Your task to perform on an android device: change the clock display to show seconds Image 0: 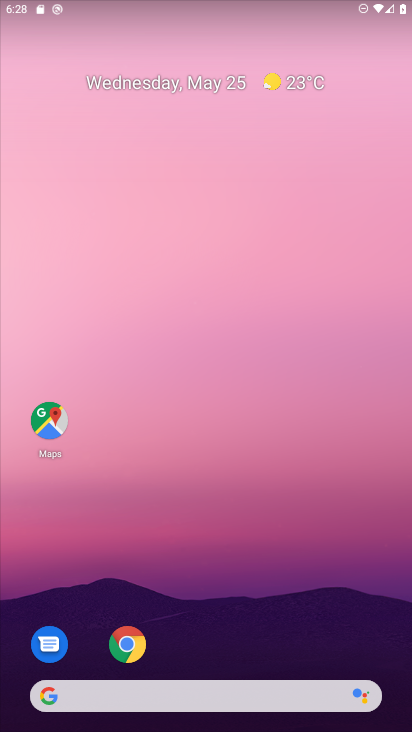
Step 0: drag from (403, 667) to (291, 3)
Your task to perform on an android device: change the clock display to show seconds Image 1: 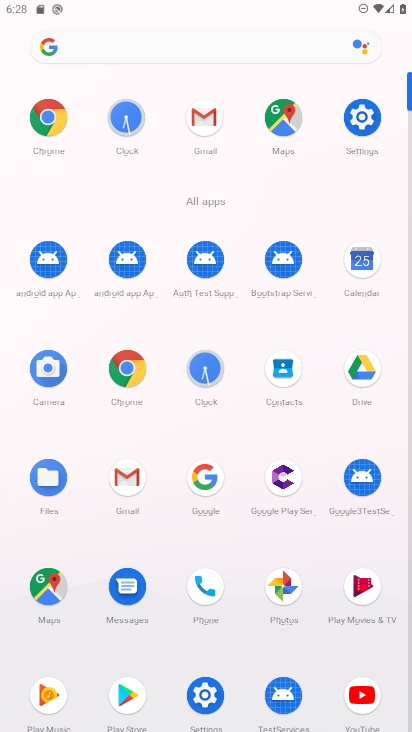
Step 1: click (201, 384)
Your task to perform on an android device: change the clock display to show seconds Image 2: 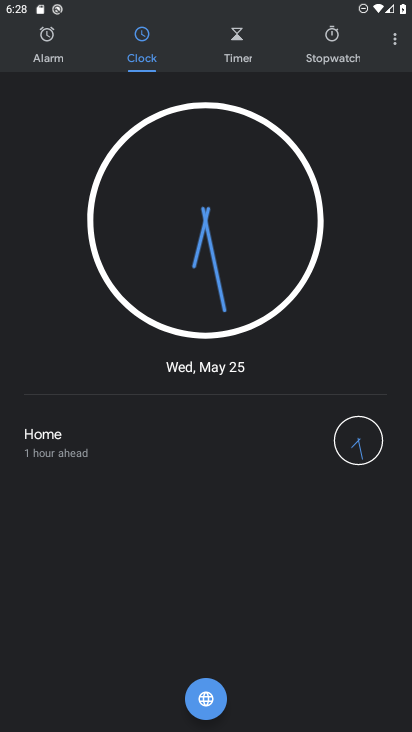
Step 2: click (393, 37)
Your task to perform on an android device: change the clock display to show seconds Image 3: 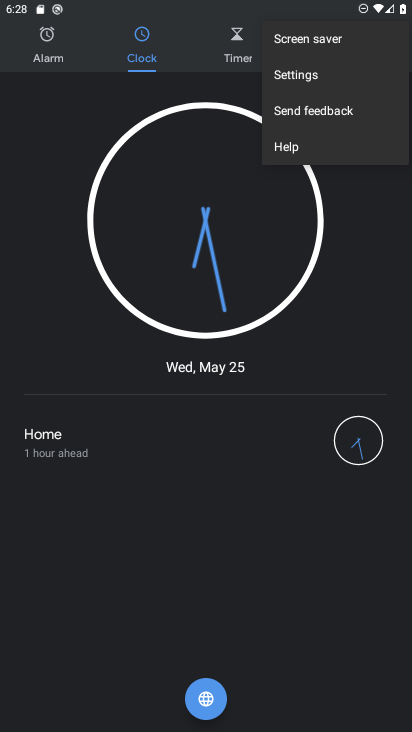
Step 3: click (351, 80)
Your task to perform on an android device: change the clock display to show seconds Image 4: 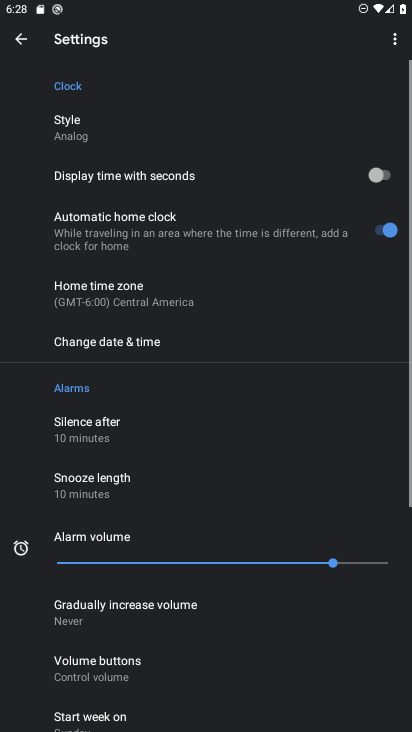
Step 4: click (337, 166)
Your task to perform on an android device: change the clock display to show seconds Image 5: 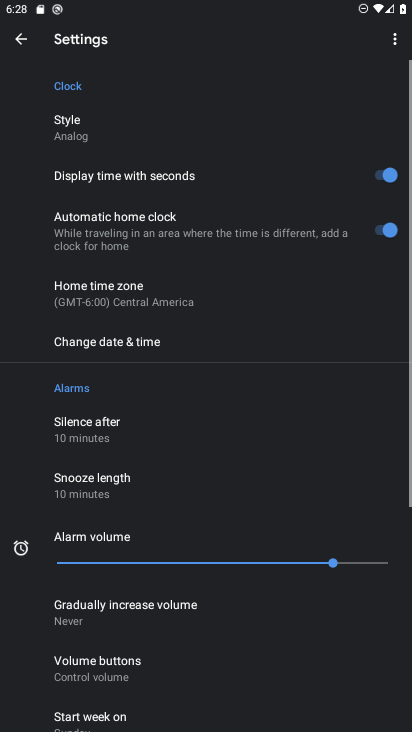
Step 5: task complete